Your task to perform on an android device: What's on my calendar tomorrow? Image 0: 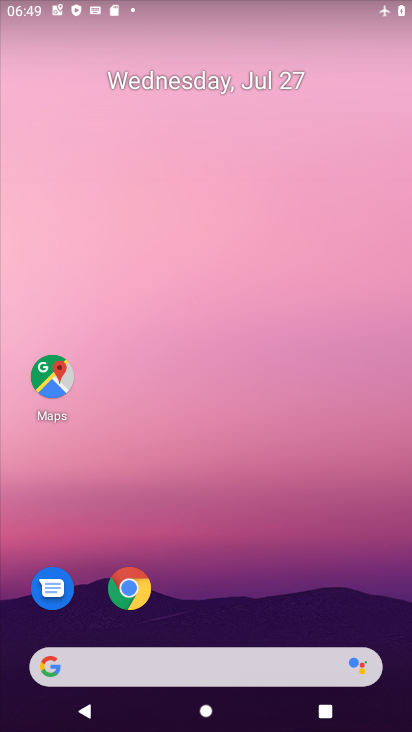
Step 0: drag from (268, 671) to (304, 37)
Your task to perform on an android device: What's on my calendar tomorrow? Image 1: 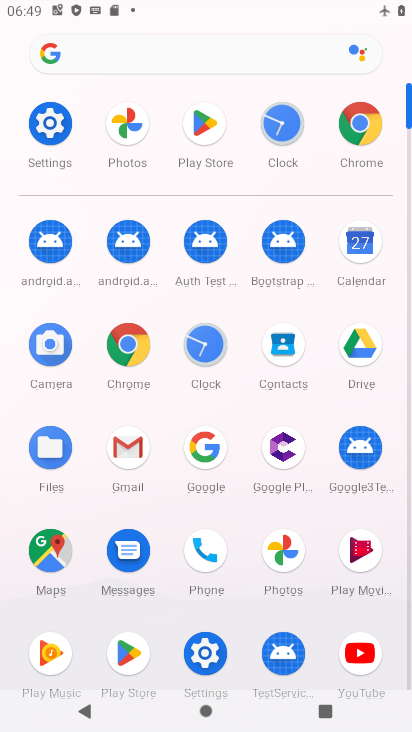
Step 1: click (365, 229)
Your task to perform on an android device: What's on my calendar tomorrow? Image 2: 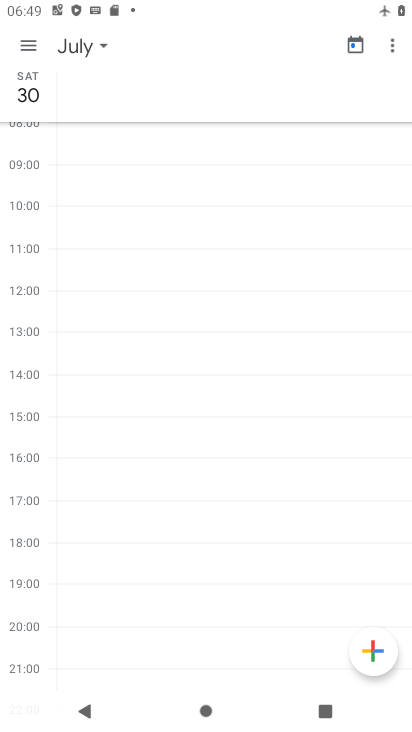
Step 2: click (99, 42)
Your task to perform on an android device: What's on my calendar tomorrow? Image 3: 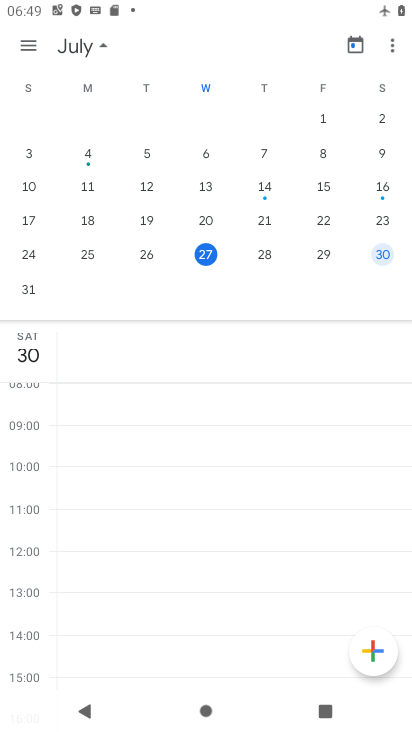
Step 3: click (260, 251)
Your task to perform on an android device: What's on my calendar tomorrow? Image 4: 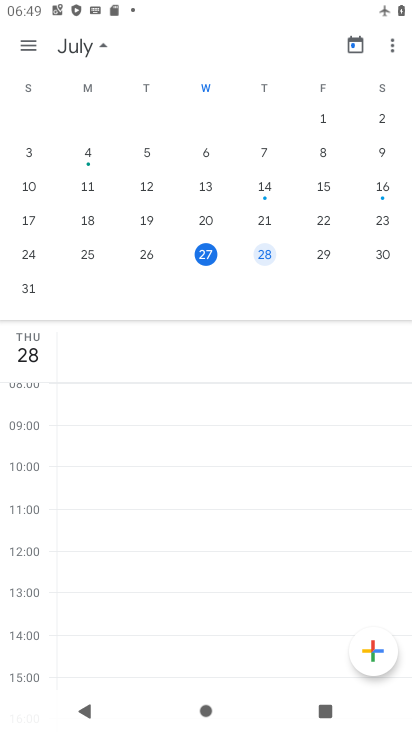
Step 4: task complete